Your task to perform on an android device: What's on the menu at Papa Murphy's? Image 0: 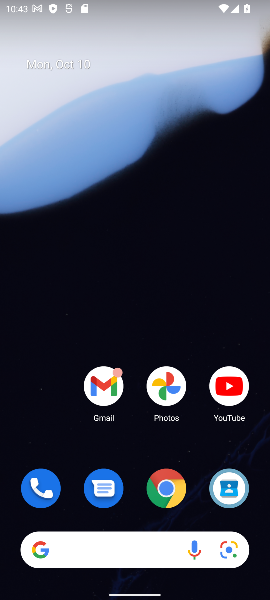
Step 0: click (185, 484)
Your task to perform on an android device: What's on the menu at Papa Murphy's? Image 1: 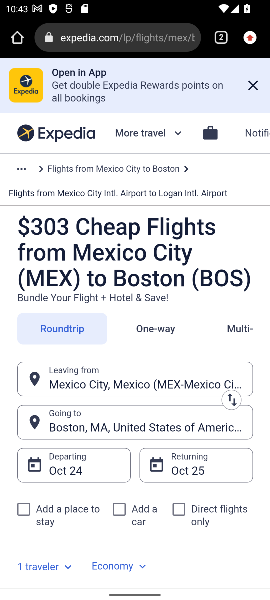
Step 1: drag from (251, 45) to (123, 120)
Your task to perform on an android device: What's on the menu at Papa Murphy's? Image 2: 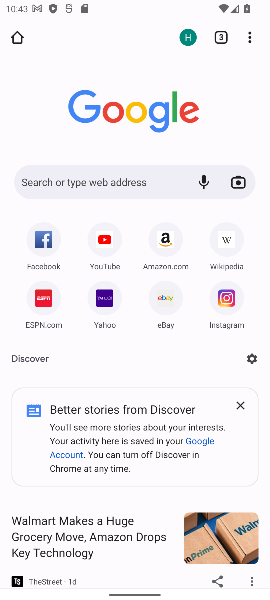
Step 2: click (91, 187)
Your task to perform on an android device: What's on the menu at Papa Murphy's? Image 3: 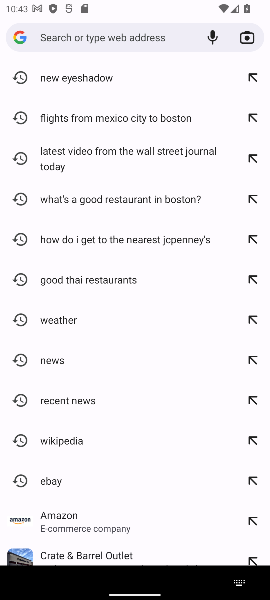
Step 3: type "menu at Papa Murphy's?"
Your task to perform on an android device: What's on the menu at Papa Murphy's? Image 4: 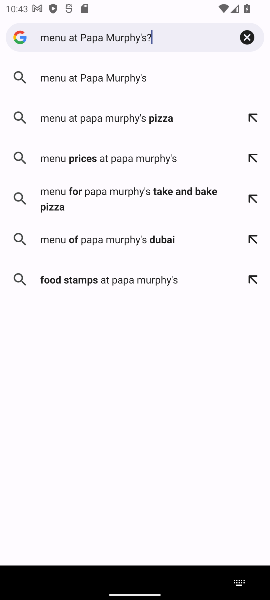
Step 4: type ""
Your task to perform on an android device: What's on the menu at Papa Murphy's? Image 5: 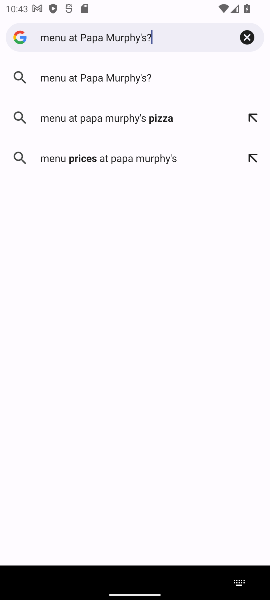
Step 5: click (108, 79)
Your task to perform on an android device: What's on the menu at Papa Murphy's? Image 6: 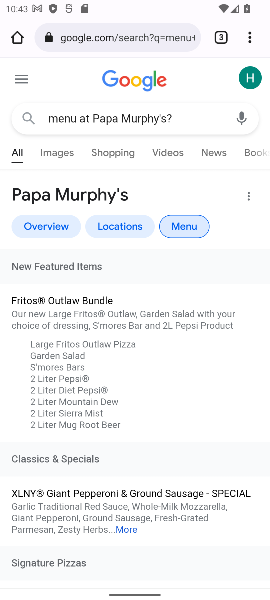
Step 6: task complete